Your task to perform on an android device: Open network settings Image 0: 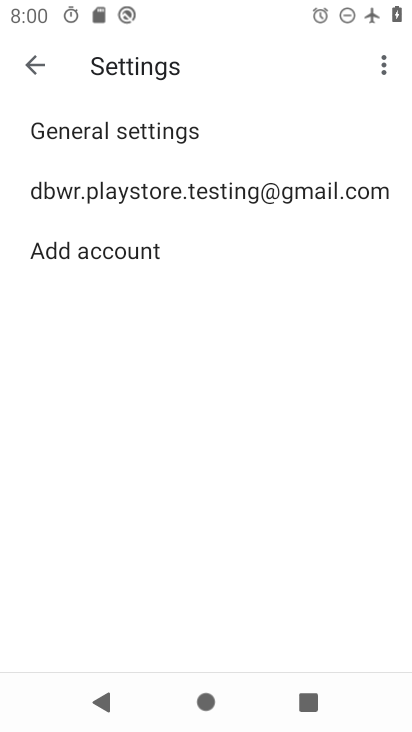
Step 0: press home button
Your task to perform on an android device: Open network settings Image 1: 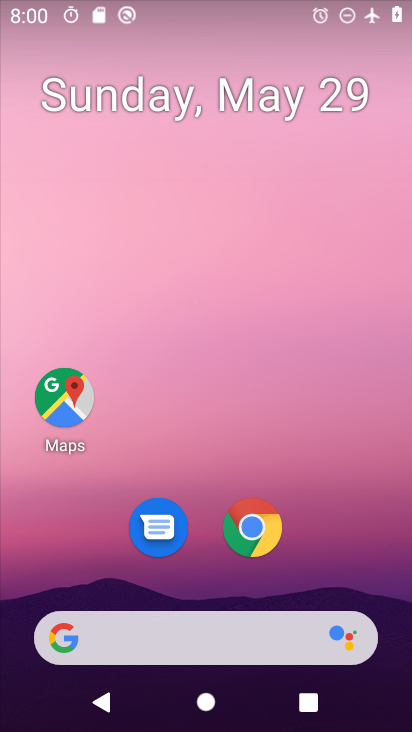
Step 1: drag from (389, 652) to (303, 83)
Your task to perform on an android device: Open network settings Image 2: 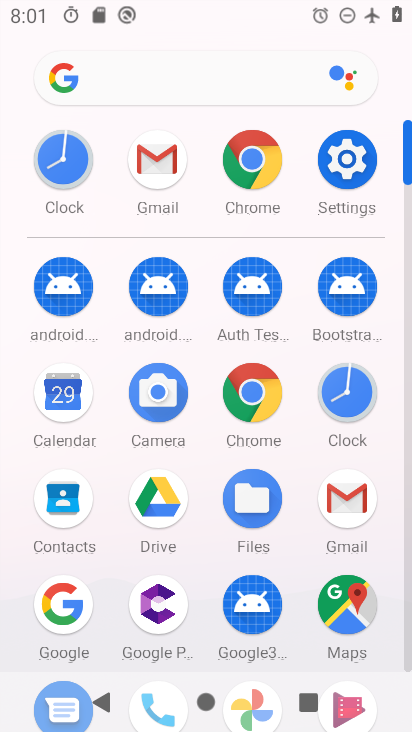
Step 2: click (354, 163)
Your task to perform on an android device: Open network settings Image 3: 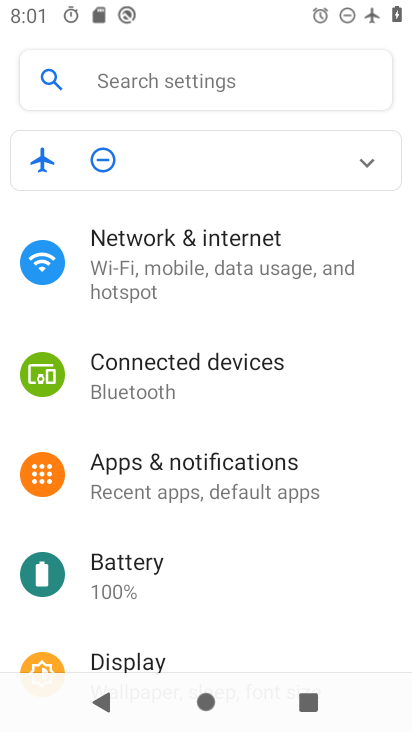
Step 3: click (174, 255)
Your task to perform on an android device: Open network settings Image 4: 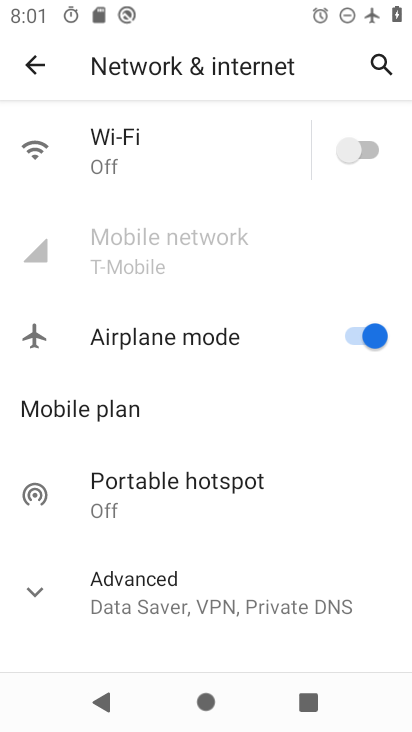
Step 4: task complete